Your task to perform on an android device: Go to Android settings Image 0: 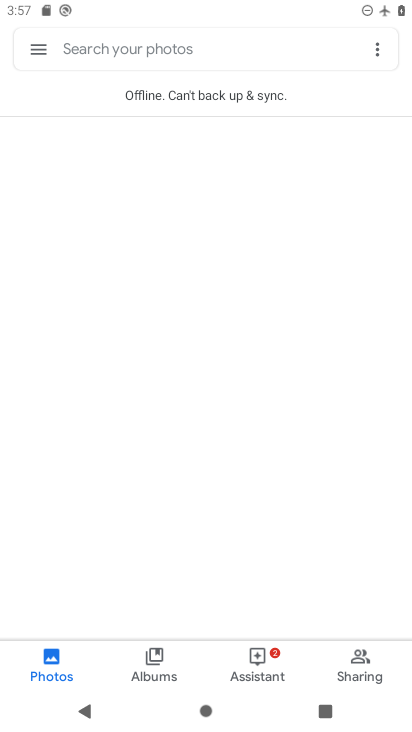
Step 0: press home button
Your task to perform on an android device: Go to Android settings Image 1: 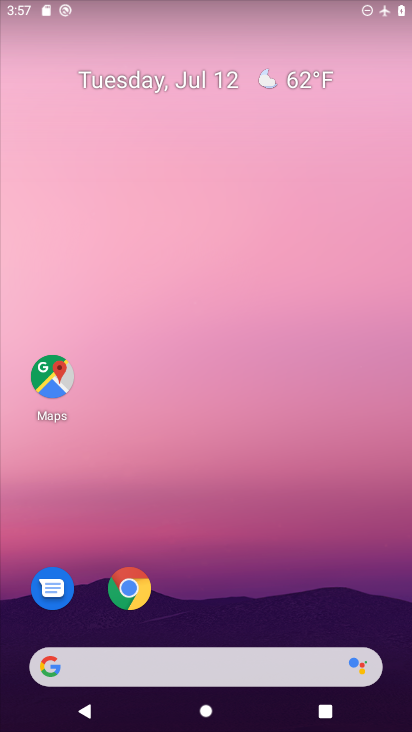
Step 1: drag from (185, 577) to (200, 9)
Your task to perform on an android device: Go to Android settings Image 2: 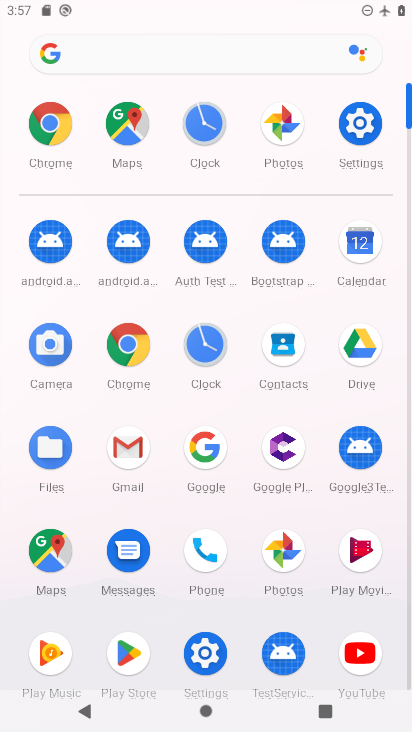
Step 2: click (199, 664)
Your task to perform on an android device: Go to Android settings Image 3: 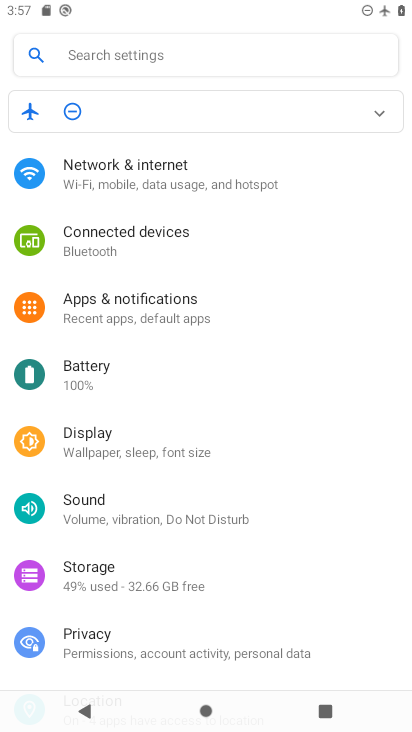
Step 3: drag from (165, 586) to (209, 285)
Your task to perform on an android device: Go to Android settings Image 4: 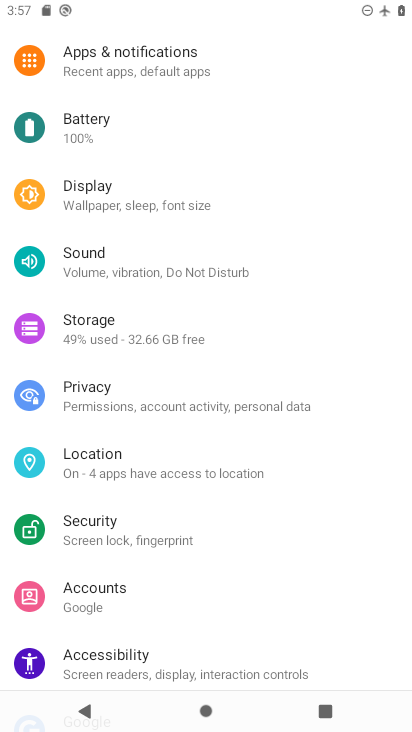
Step 4: drag from (167, 616) to (173, 176)
Your task to perform on an android device: Go to Android settings Image 5: 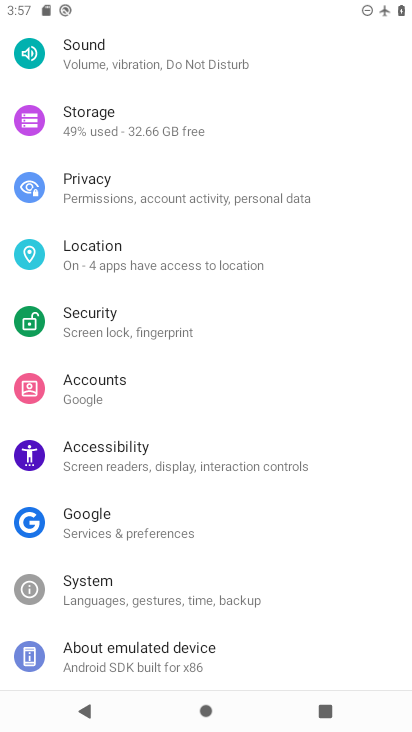
Step 5: click (129, 655)
Your task to perform on an android device: Go to Android settings Image 6: 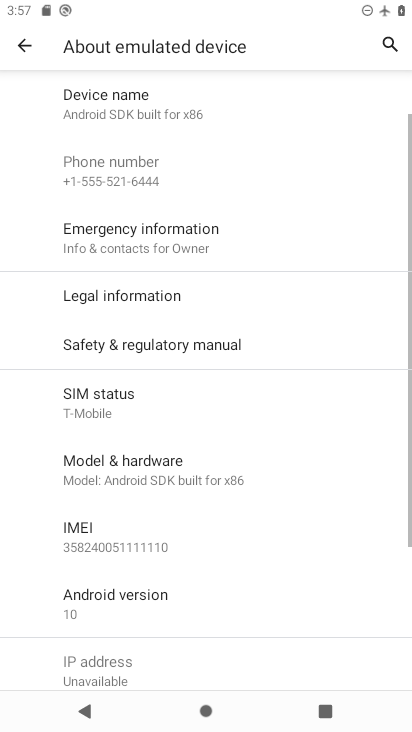
Step 6: click (160, 597)
Your task to perform on an android device: Go to Android settings Image 7: 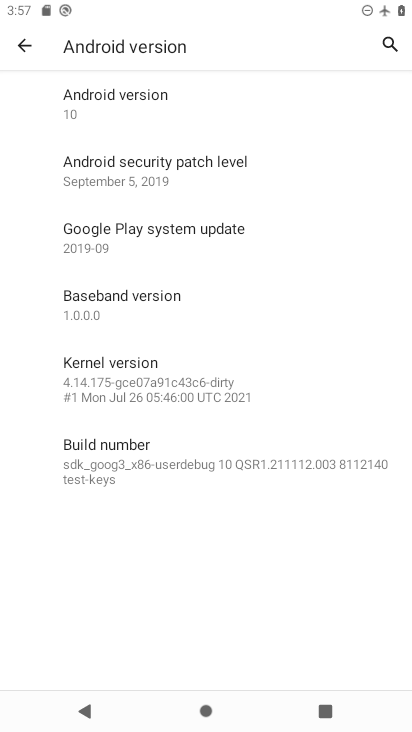
Step 7: task complete